Your task to perform on an android device: toggle sleep mode Image 0: 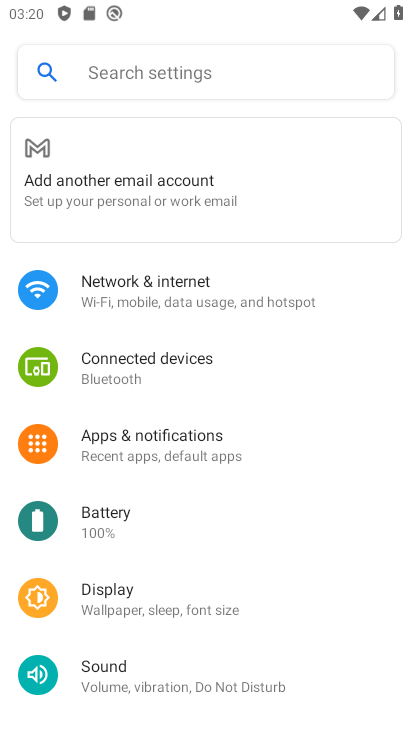
Step 0: click (301, 613)
Your task to perform on an android device: toggle sleep mode Image 1: 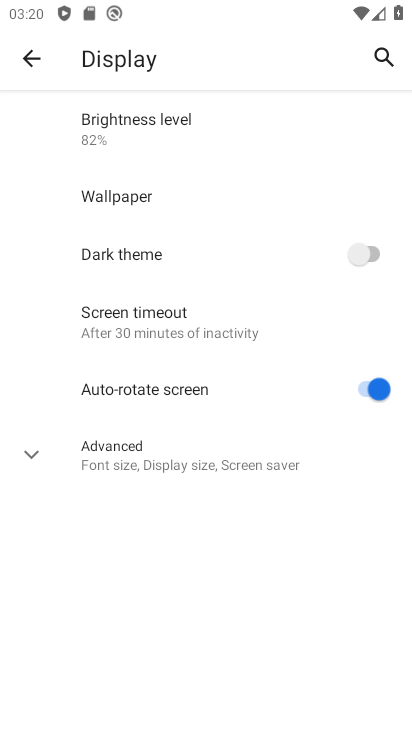
Step 1: click (248, 470)
Your task to perform on an android device: toggle sleep mode Image 2: 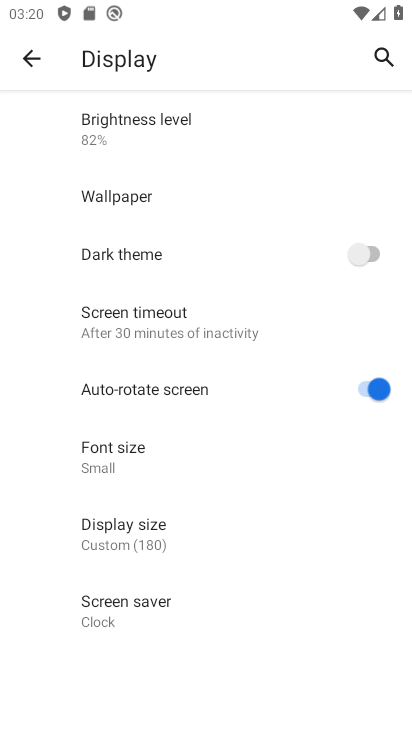
Step 2: task complete